Your task to perform on an android device: turn off wifi Image 0: 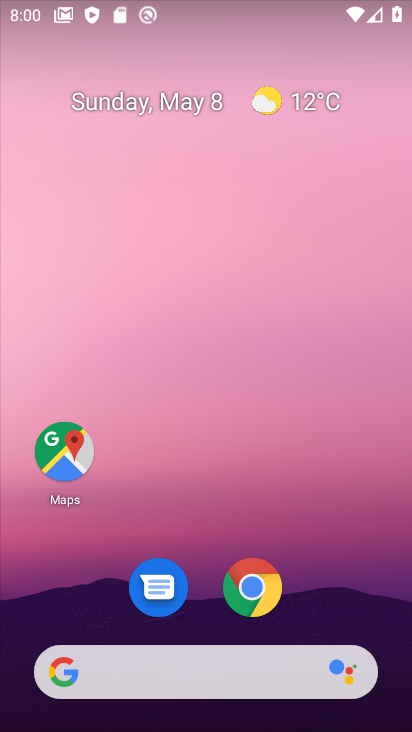
Step 0: drag from (316, 616) to (340, 176)
Your task to perform on an android device: turn off wifi Image 1: 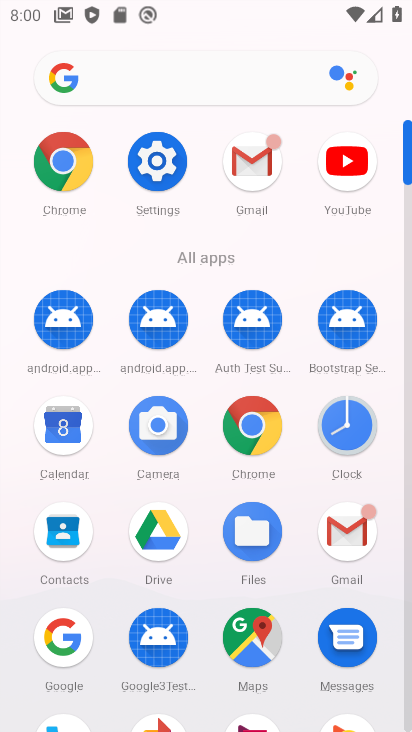
Step 1: click (155, 158)
Your task to perform on an android device: turn off wifi Image 2: 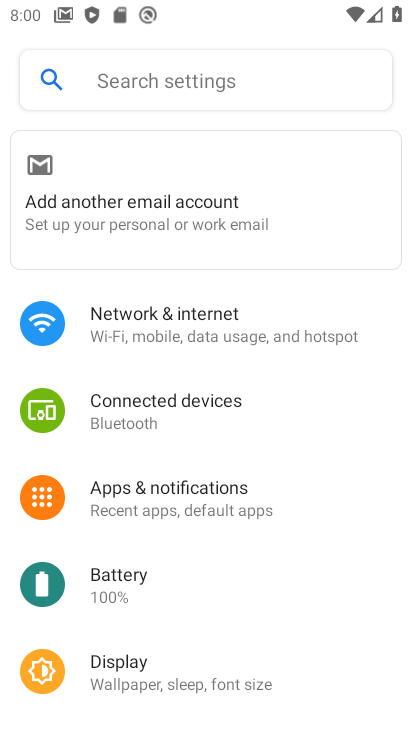
Step 2: click (171, 321)
Your task to perform on an android device: turn off wifi Image 3: 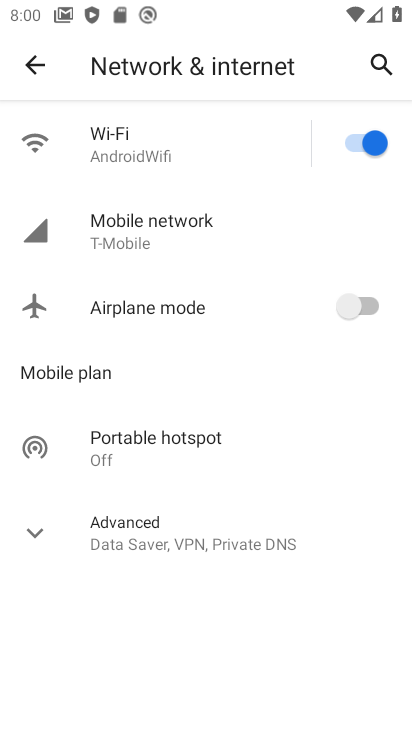
Step 3: click (375, 153)
Your task to perform on an android device: turn off wifi Image 4: 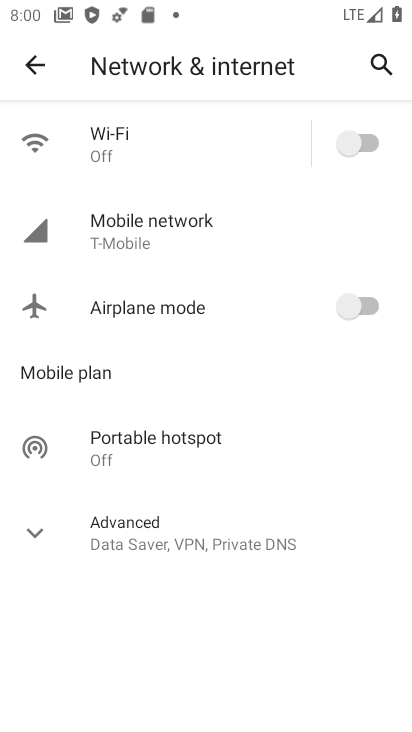
Step 4: task complete